Your task to perform on an android device: check battery use Image 0: 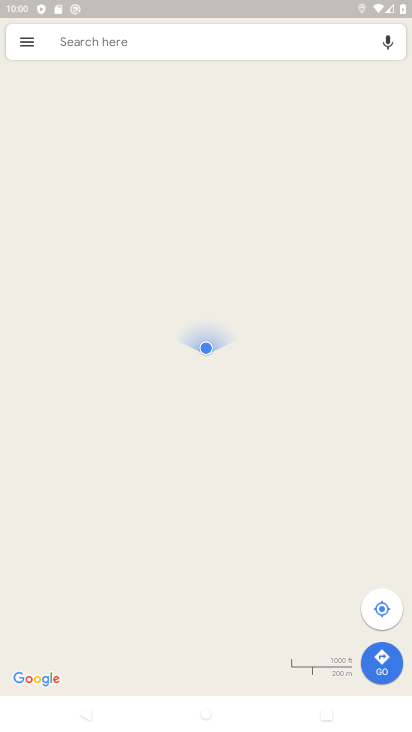
Step 0: press home button
Your task to perform on an android device: check battery use Image 1: 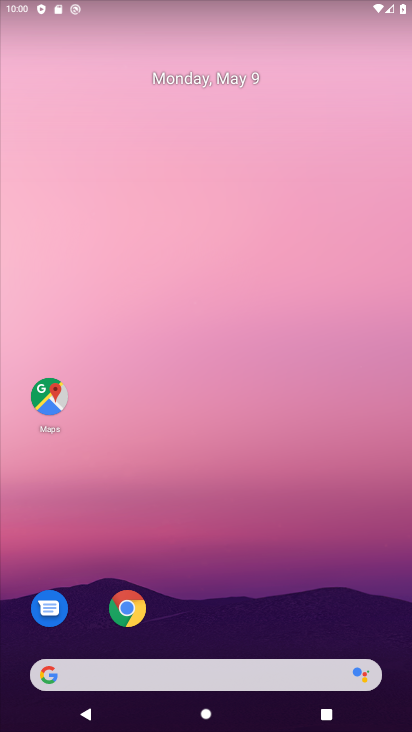
Step 1: drag from (205, 653) to (256, 64)
Your task to perform on an android device: check battery use Image 2: 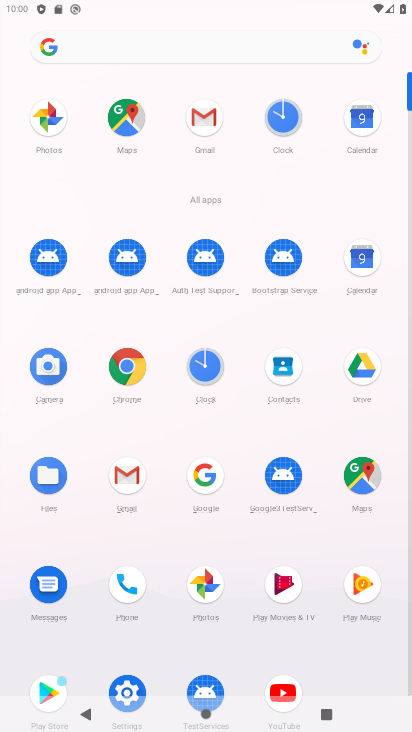
Step 2: drag from (171, 622) to (195, 421)
Your task to perform on an android device: check battery use Image 3: 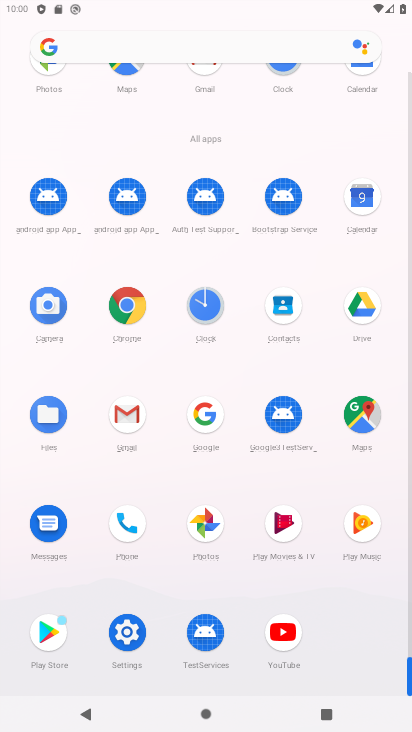
Step 3: click (121, 637)
Your task to perform on an android device: check battery use Image 4: 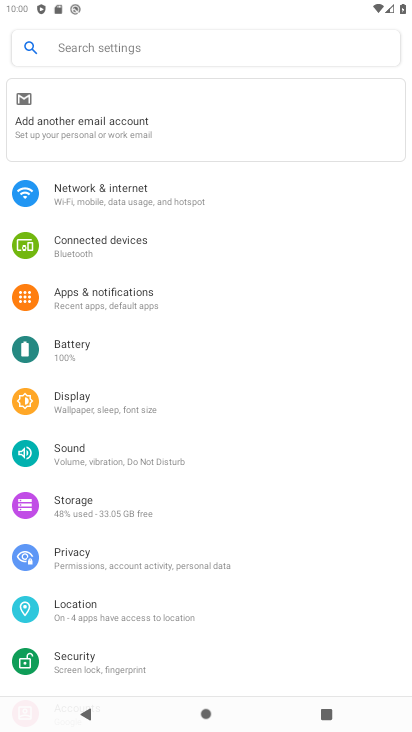
Step 4: click (113, 358)
Your task to perform on an android device: check battery use Image 5: 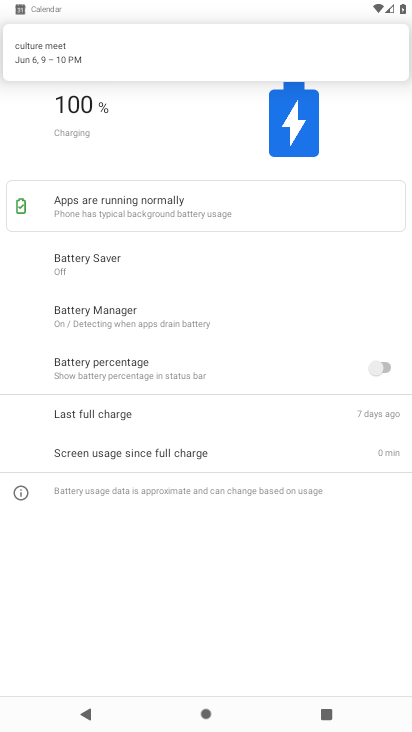
Step 5: task complete